Your task to perform on an android device: See recent photos Image 0: 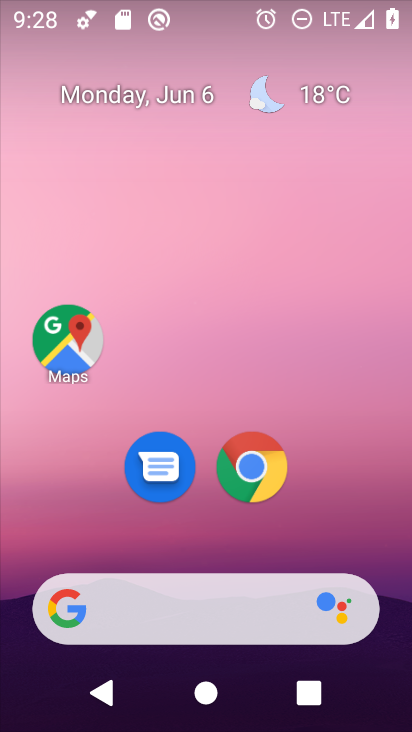
Step 0: drag from (367, 525) to (376, 134)
Your task to perform on an android device: See recent photos Image 1: 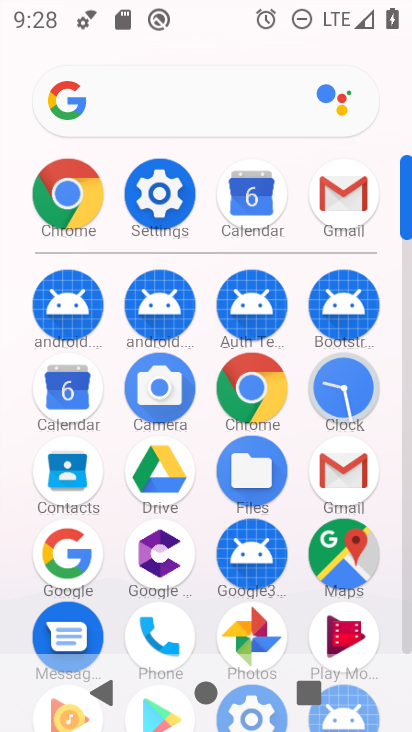
Step 1: click (262, 636)
Your task to perform on an android device: See recent photos Image 2: 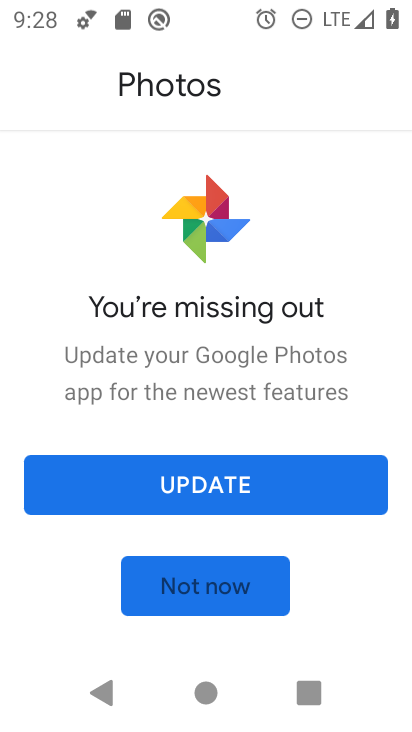
Step 2: click (281, 498)
Your task to perform on an android device: See recent photos Image 3: 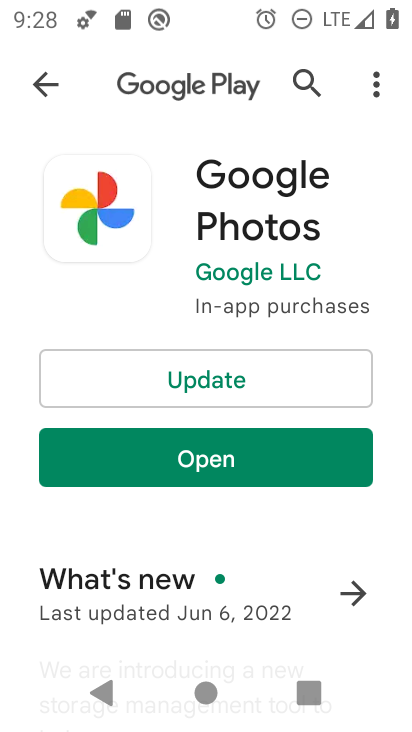
Step 3: click (140, 371)
Your task to perform on an android device: See recent photos Image 4: 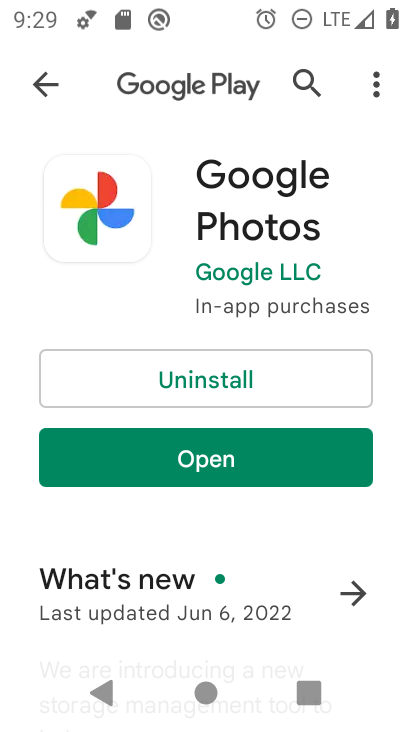
Step 4: click (279, 473)
Your task to perform on an android device: See recent photos Image 5: 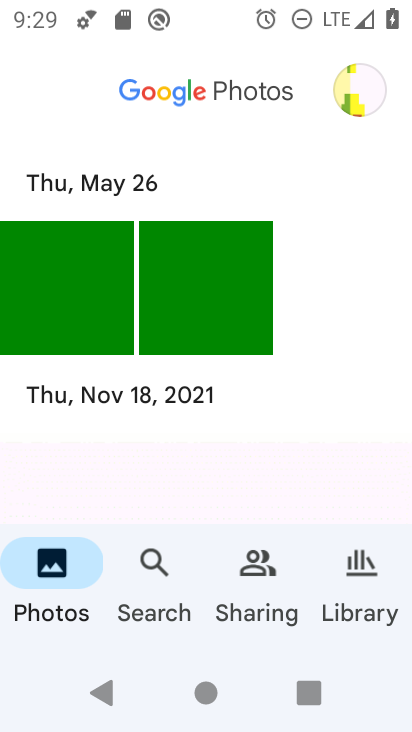
Step 5: click (97, 288)
Your task to perform on an android device: See recent photos Image 6: 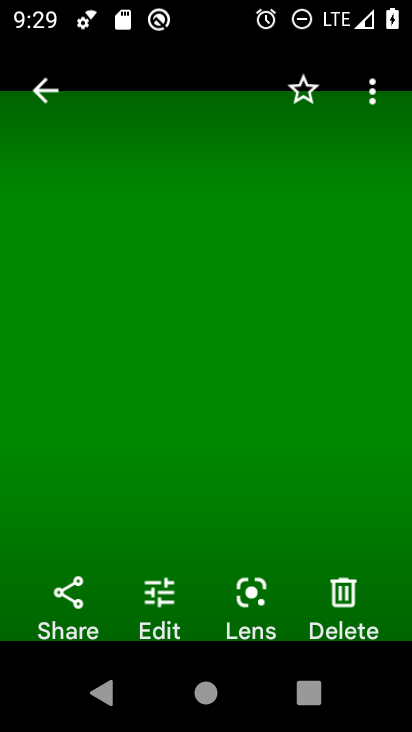
Step 6: task complete